Your task to perform on an android device: clear history in the chrome app Image 0: 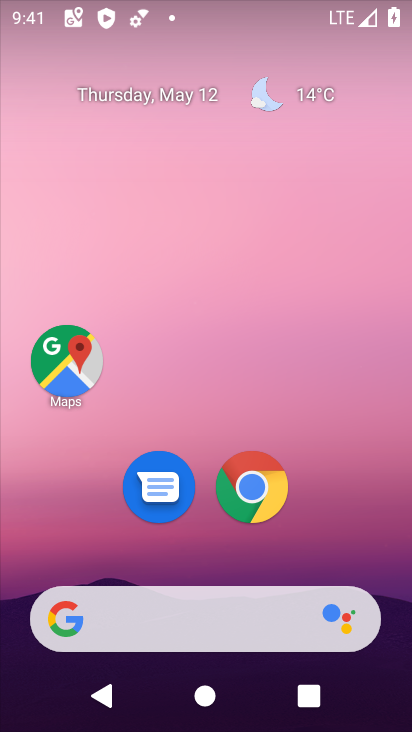
Step 0: click (262, 489)
Your task to perform on an android device: clear history in the chrome app Image 1: 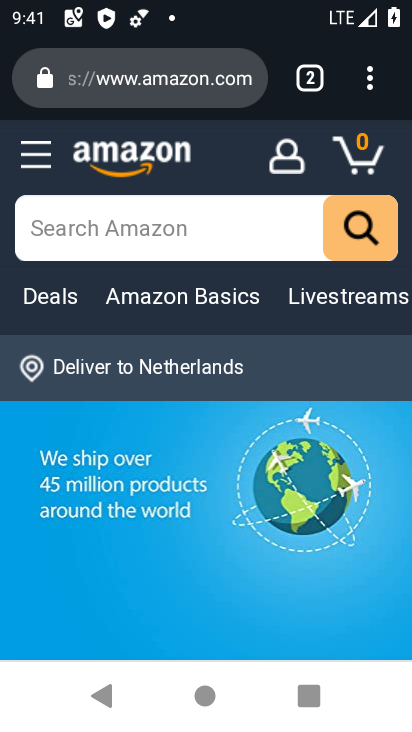
Step 1: click (371, 83)
Your task to perform on an android device: clear history in the chrome app Image 2: 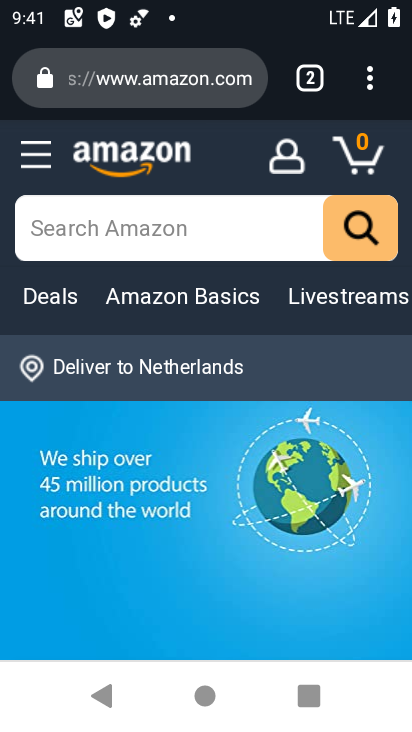
Step 2: click (365, 82)
Your task to perform on an android device: clear history in the chrome app Image 3: 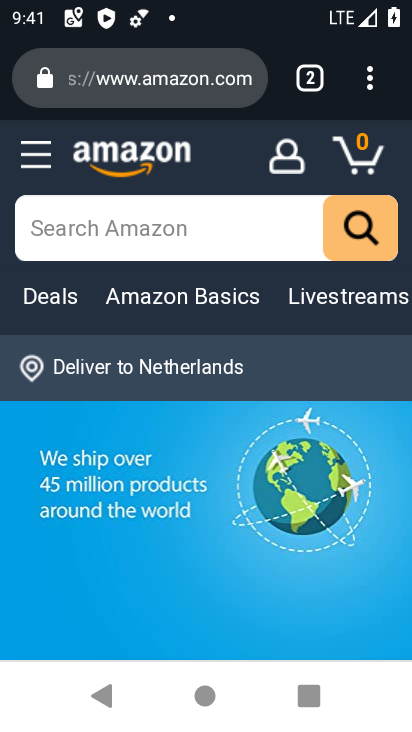
Step 3: click (370, 74)
Your task to perform on an android device: clear history in the chrome app Image 4: 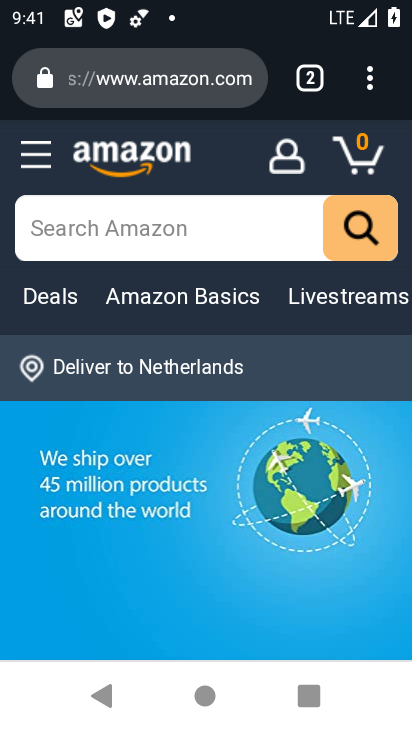
Step 4: click (354, 77)
Your task to perform on an android device: clear history in the chrome app Image 5: 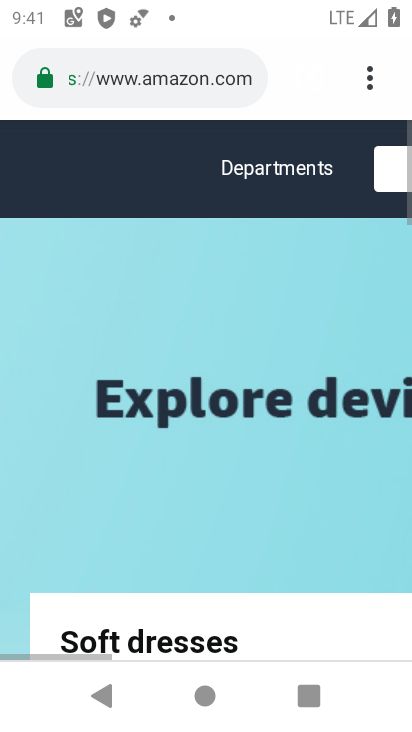
Step 5: click (354, 76)
Your task to perform on an android device: clear history in the chrome app Image 6: 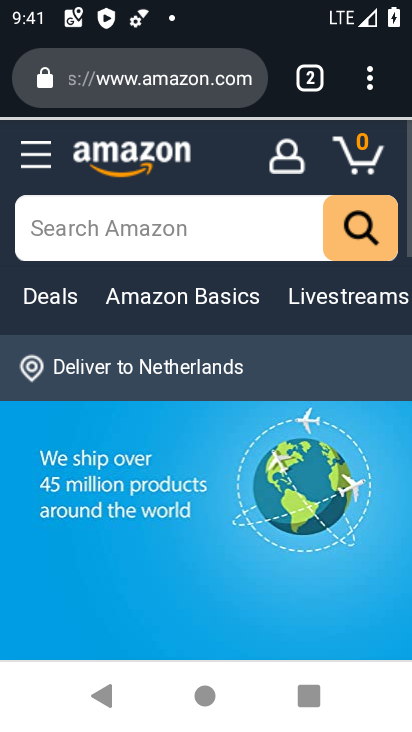
Step 6: click (365, 75)
Your task to perform on an android device: clear history in the chrome app Image 7: 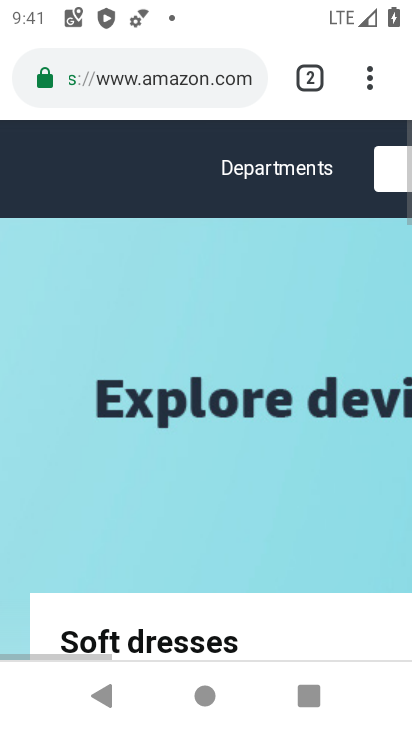
Step 7: click (366, 75)
Your task to perform on an android device: clear history in the chrome app Image 8: 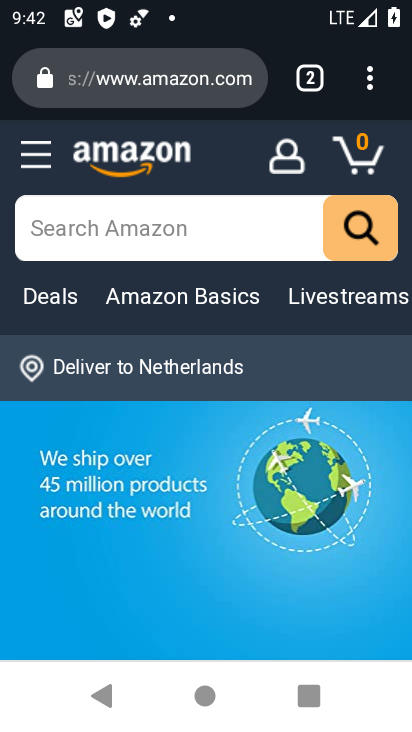
Step 8: click (388, 75)
Your task to perform on an android device: clear history in the chrome app Image 9: 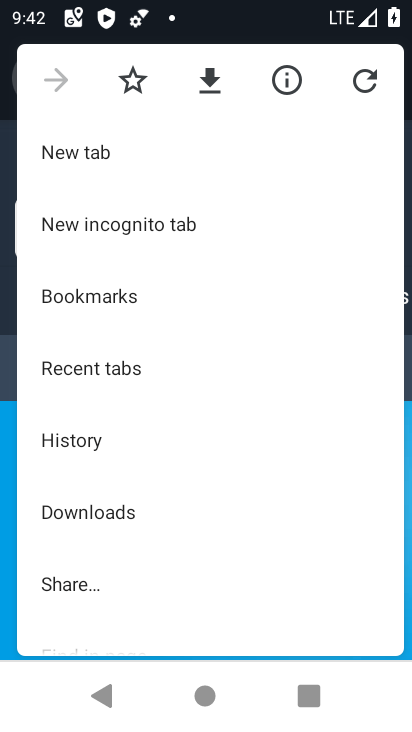
Step 9: click (147, 448)
Your task to perform on an android device: clear history in the chrome app Image 10: 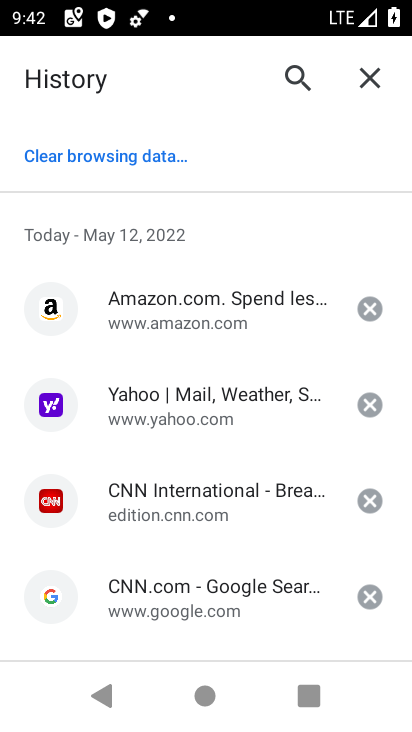
Step 10: click (124, 164)
Your task to perform on an android device: clear history in the chrome app Image 11: 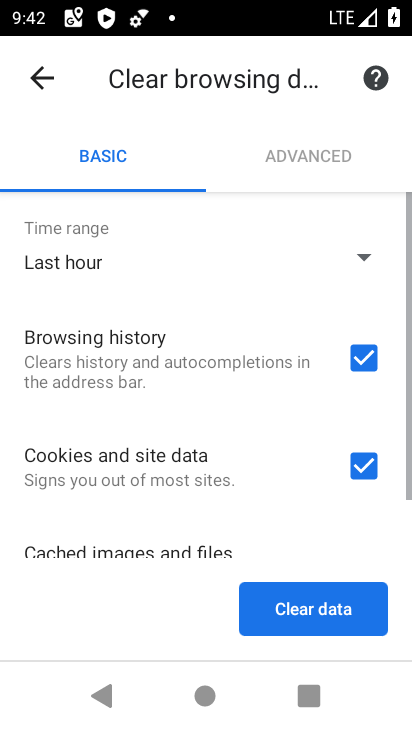
Step 11: click (353, 616)
Your task to perform on an android device: clear history in the chrome app Image 12: 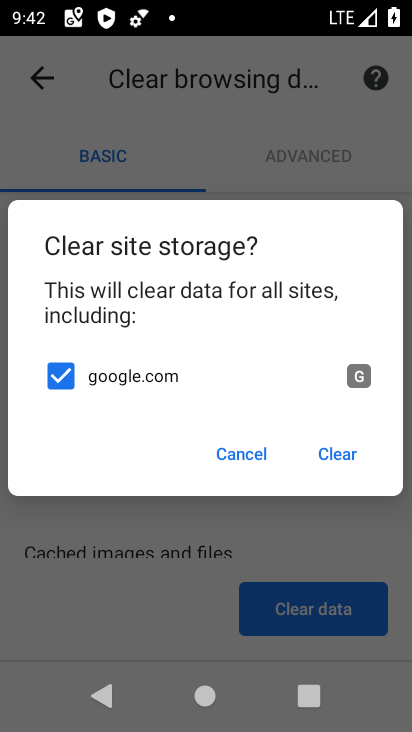
Step 12: click (303, 454)
Your task to perform on an android device: clear history in the chrome app Image 13: 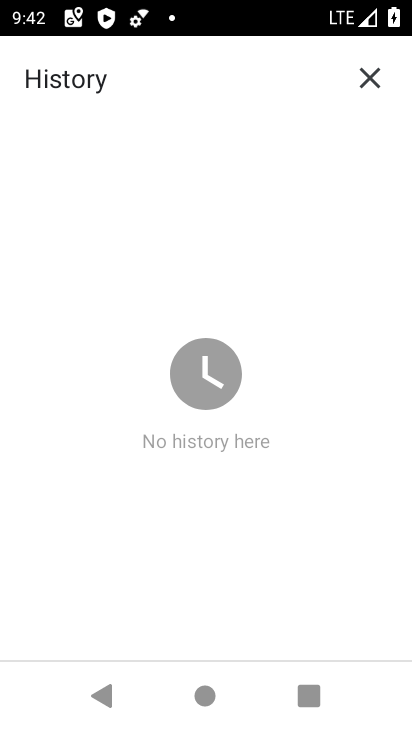
Step 13: task complete